Your task to perform on an android device: delete browsing data in the chrome app Image 0: 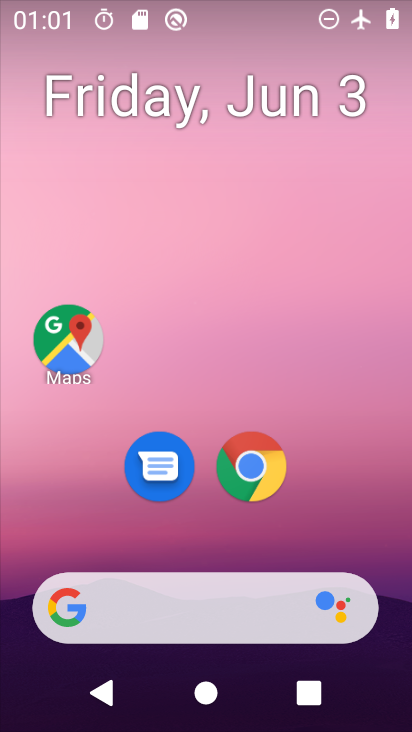
Step 0: click (250, 444)
Your task to perform on an android device: delete browsing data in the chrome app Image 1: 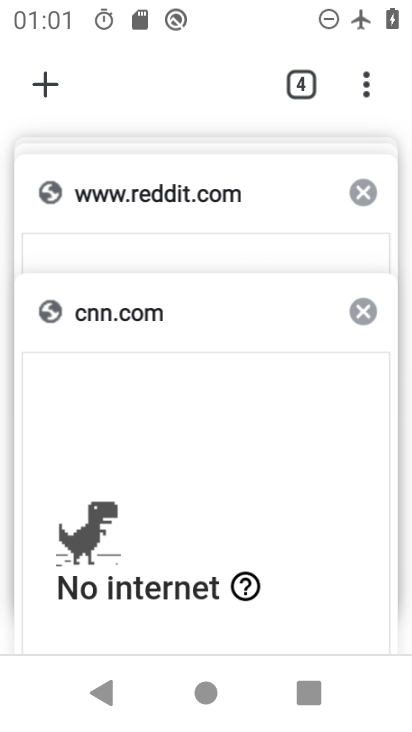
Step 1: drag from (365, 85) to (285, 521)
Your task to perform on an android device: delete browsing data in the chrome app Image 2: 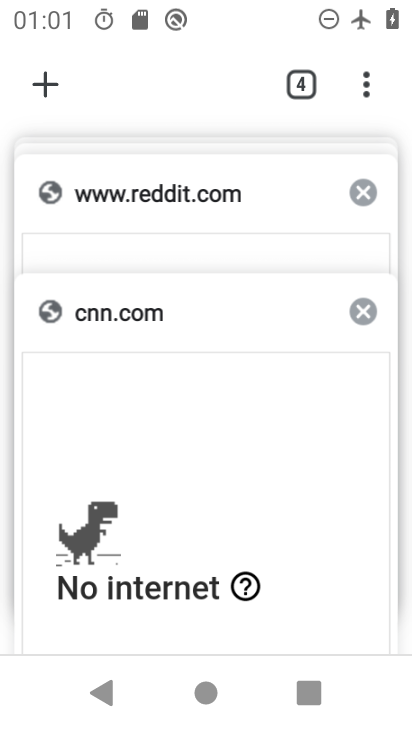
Step 2: drag from (368, 85) to (114, 314)
Your task to perform on an android device: delete browsing data in the chrome app Image 3: 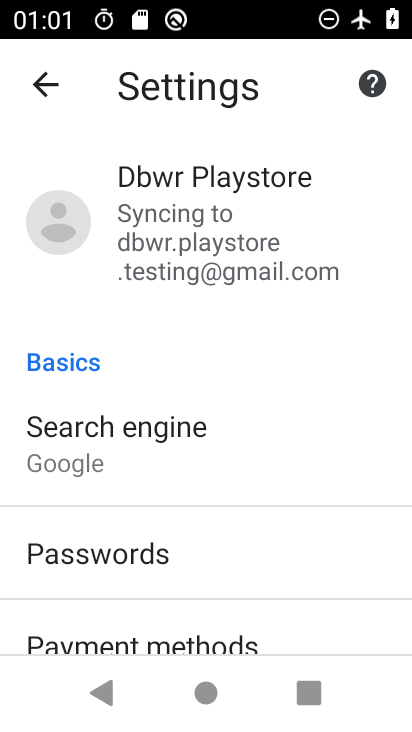
Step 3: drag from (183, 570) to (229, 245)
Your task to perform on an android device: delete browsing data in the chrome app Image 4: 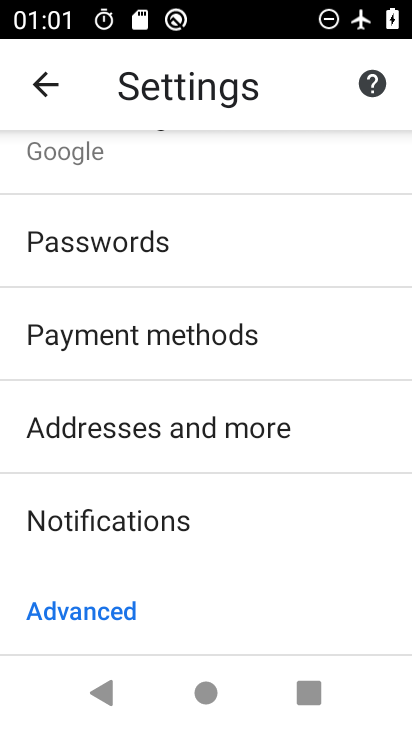
Step 4: drag from (196, 250) to (196, 524)
Your task to perform on an android device: delete browsing data in the chrome app Image 5: 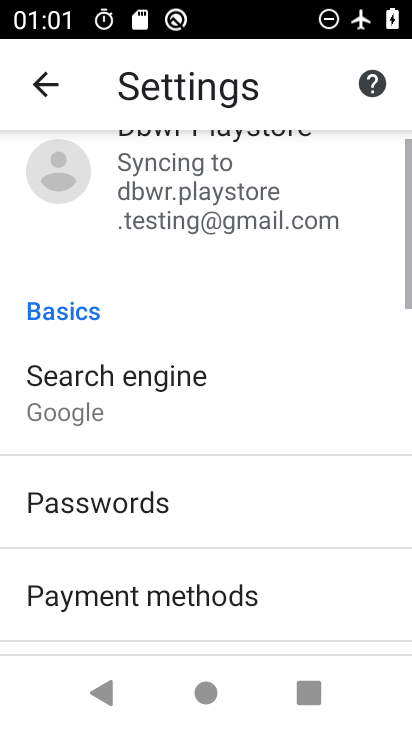
Step 5: drag from (288, 303) to (311, 258)
Your task to perform on an android device: delete browsing data in the chrome app Image 6: 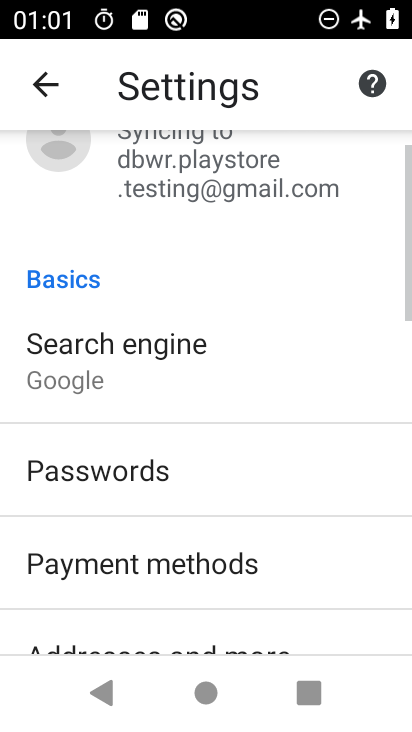
Step 6: drag from (190, 545) to (204, 314)
Your task to perform on an android device: delete browsing data in the chrome app Image 7: 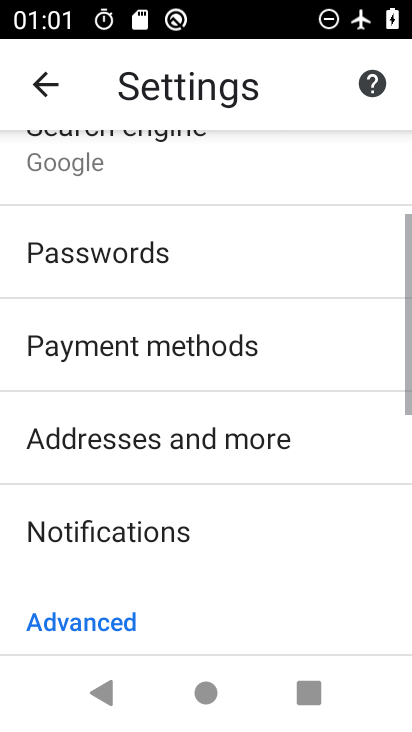
Step 7: drag from (157, 541) to (170, 322)
Your task to perform on an android device: delete browsing data in the chrome app Image 8: 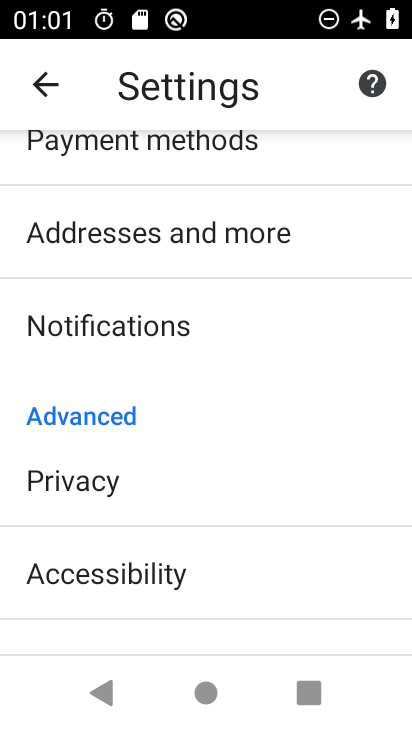
Step 8: click (33, 79)
Your task to perform on an android device: delete browsing data in the chrome app Image 9: 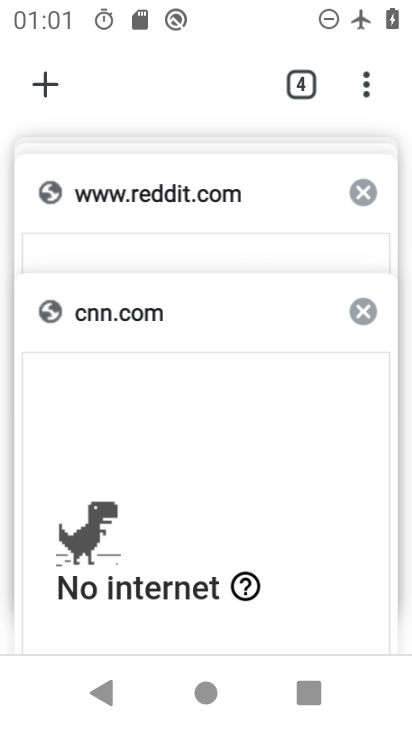
Step 9: click (364, 75)
Your task to perform on an android device: delete browsing data in the chrome app Image 10: 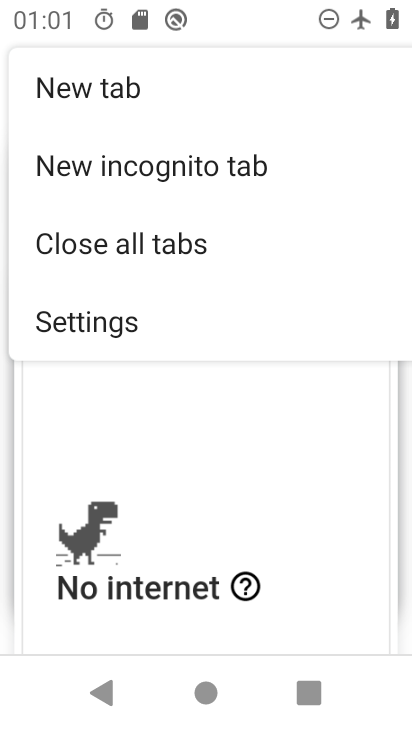
Step 10: click (147, 376)
Your task to perform on an android device: delete browsing data in the chrome app Image 11: 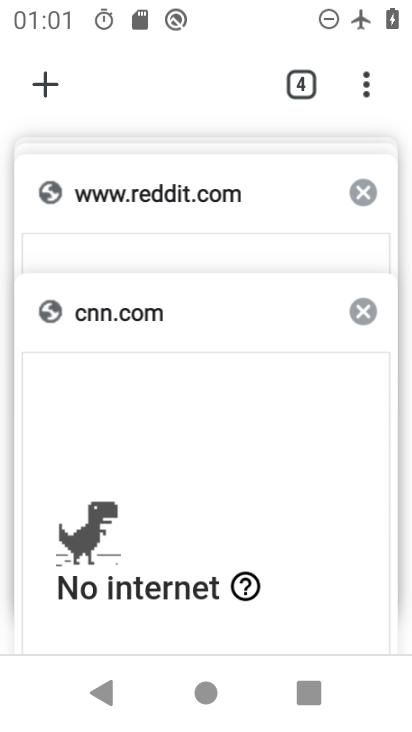
Step 11: click (121, 321)
Your task to perform on an android device: delete browsing data in the chrome app Image 12: 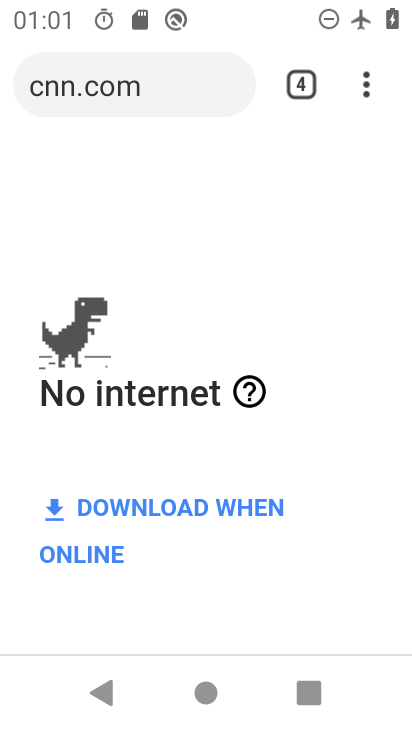
Step 12: click (360, 100)
Your task to perform on an android device: delete browsing data in the chrome app Image 13: 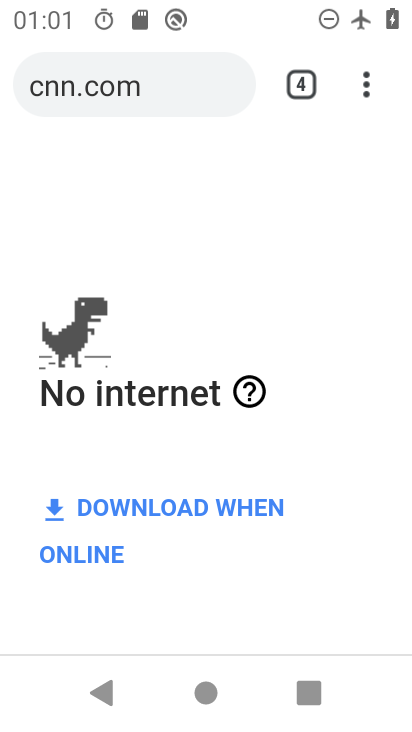
Step 13: click (358, 82)
Your task to perform on an android device: delete browsing data in the chrome app Image 14: 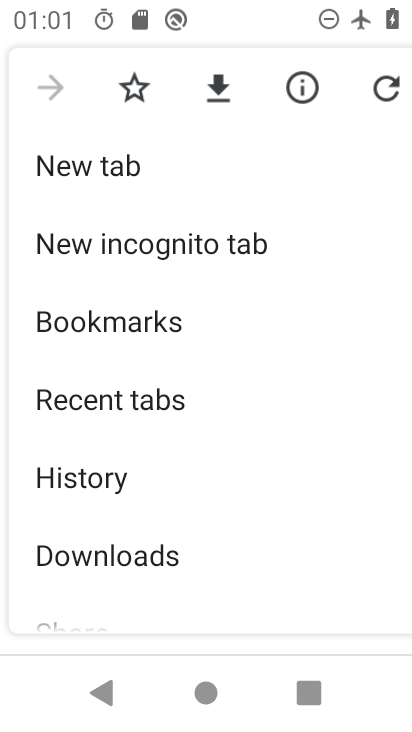
Step 14: drag from (164, 527) to (175, 398)
Your task to perform on an android device: delete browsing data in the chrome app Image 15: 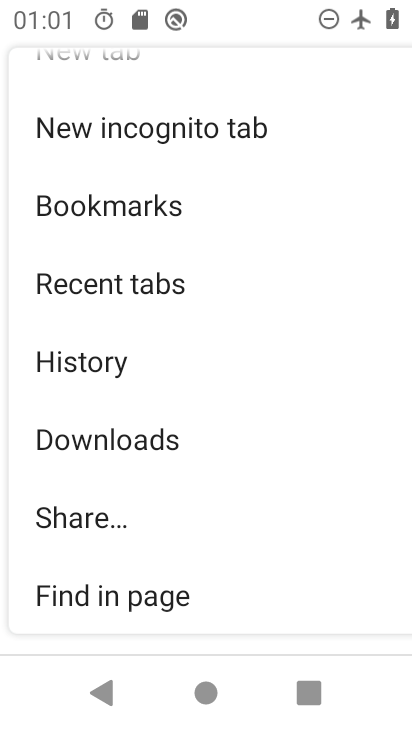
Step 15: click (147, 415)
Your task to perform on an android device: delete browsing data in the chrome app Image 16: 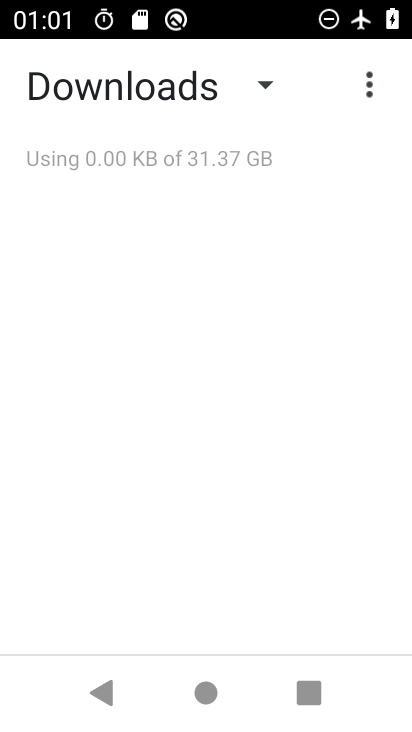
Step 16: click (372, 83)
Your task to perform on an android device: delete browsing data in the chrome app Image 17: 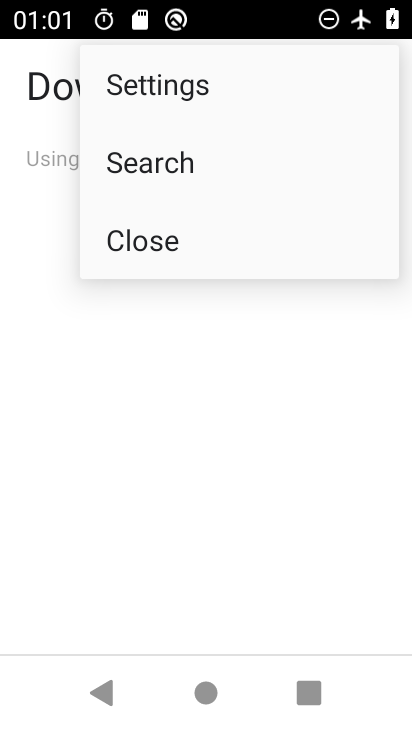
Step 17: click (177, 360)
Your task to perform on an android device: delete browsing data in the chrome app Image 18: 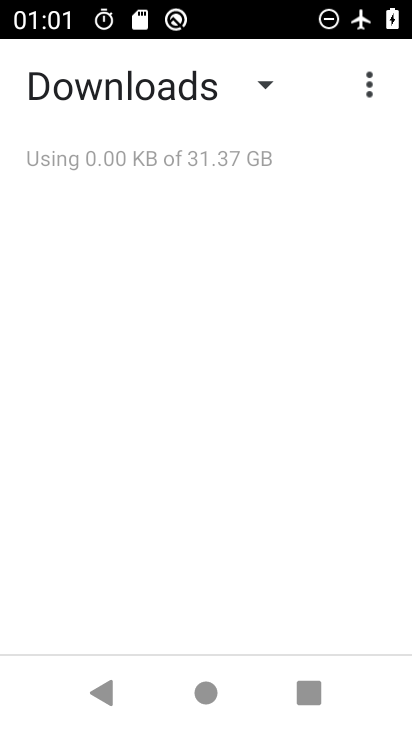
Step 18: press back button
Your task to perform on an android device: delete browsing data in the chrome app Image 19: 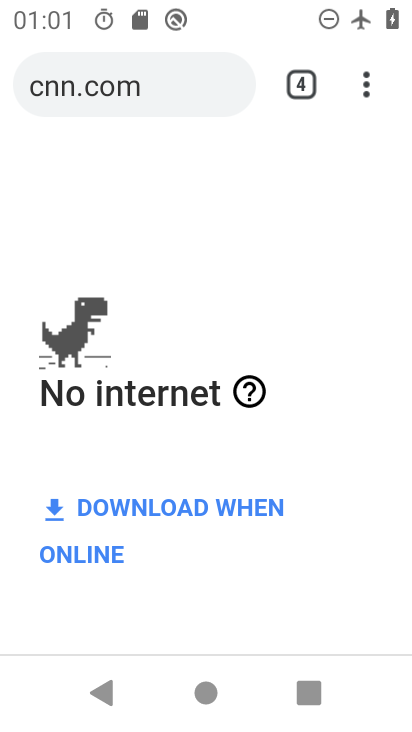
Step 19: click (369, 87)
Your task to perform on an android device: delete browsing data in the chrome app Image 20: 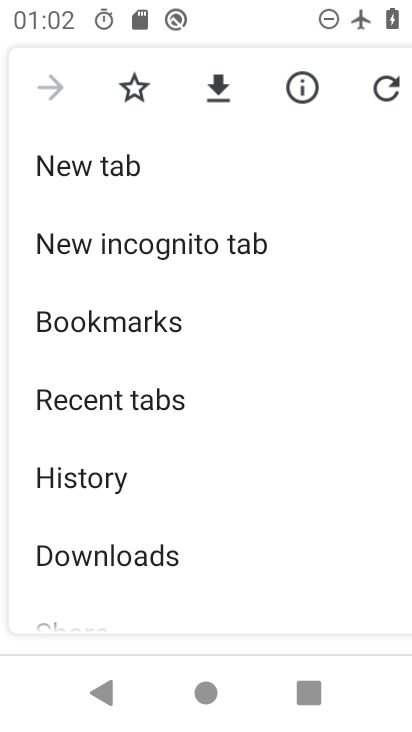
Step 20: click (150, 468)
Your task to perform on an android device: delete browsing data in the chrome app Image 21: 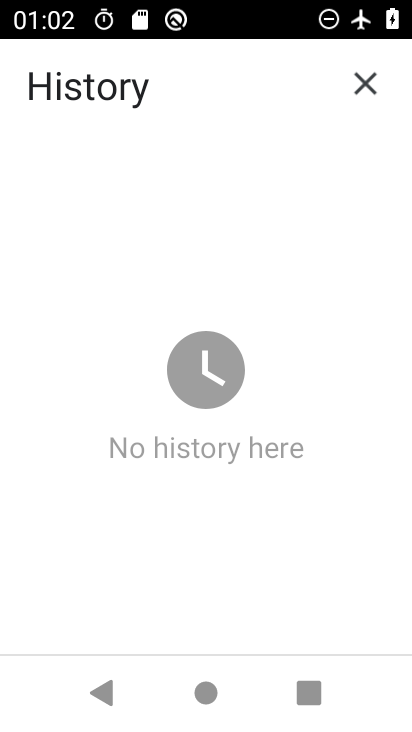
Step 21: task complete